Your task to perform on an android device: Open notification settings Image 0: 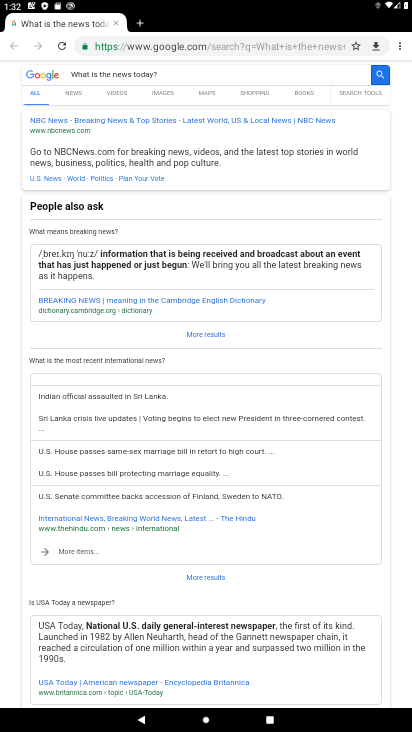
Step 0: press home button
Your task to perform on an android device: Open notification settings Image 1: 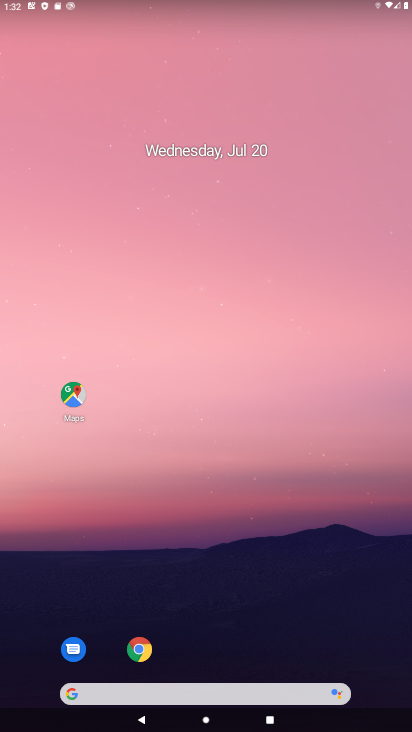
Step 1: drag from (275, 671) to (82, 180)
Your task to perform on an android device: Open notification settings Image 2: 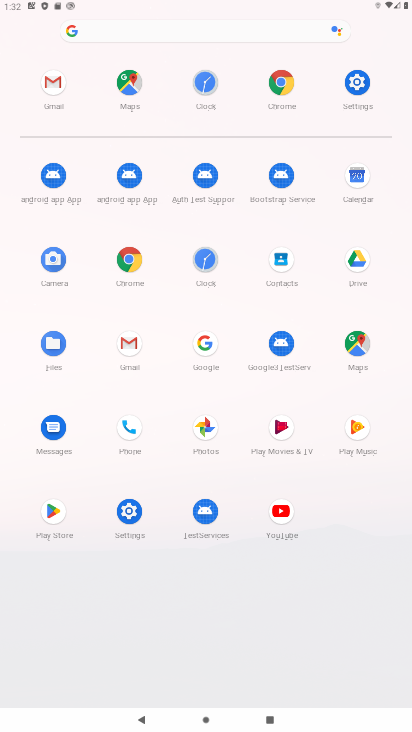
Step 2: drag from (368, 626) to (282, 12)
Your task to perform on an android device: Open notification settings Image 3: 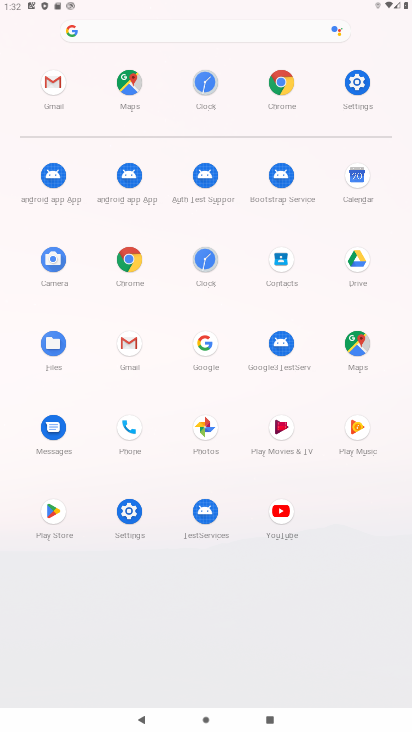
Step 3: click (115, 509)
Your task to perform on an android device: Open notification settings Image 4: 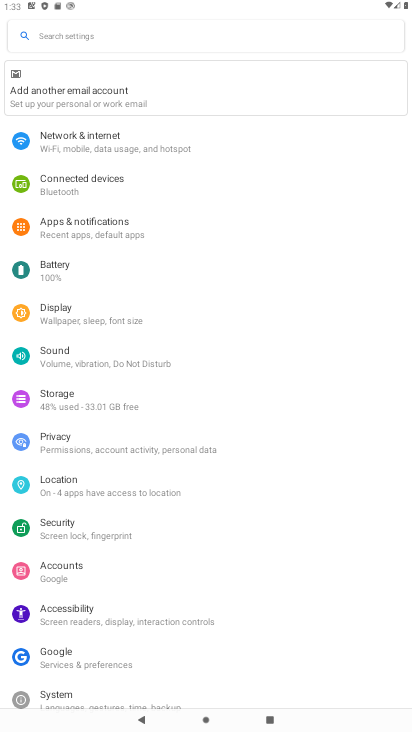
Step 4: click (84, 216)
Your task to perform on an android device: Open notification settings Image 5: 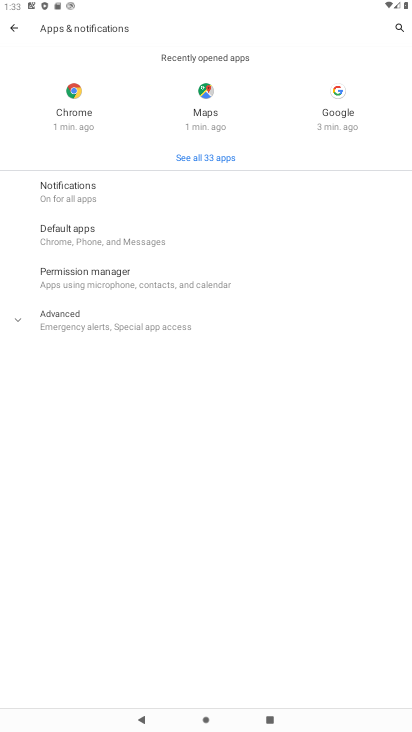
Step 5: click (65, 197)
Your task to perform on an android device: Open notification settings Image 6: 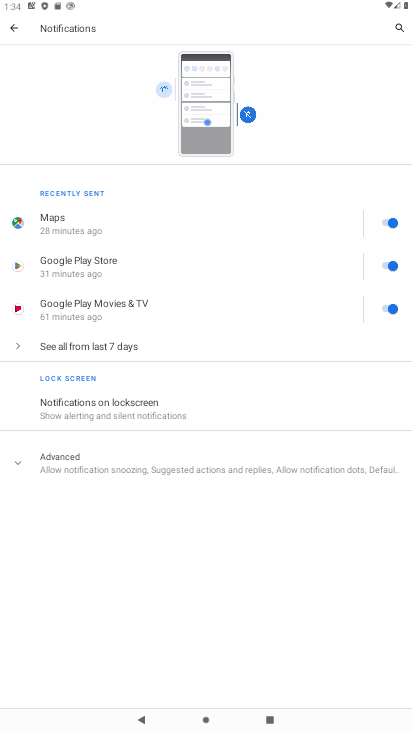
Step 6: task complete